Your task to perform on an android device: Open Yahoo.com Image 0: 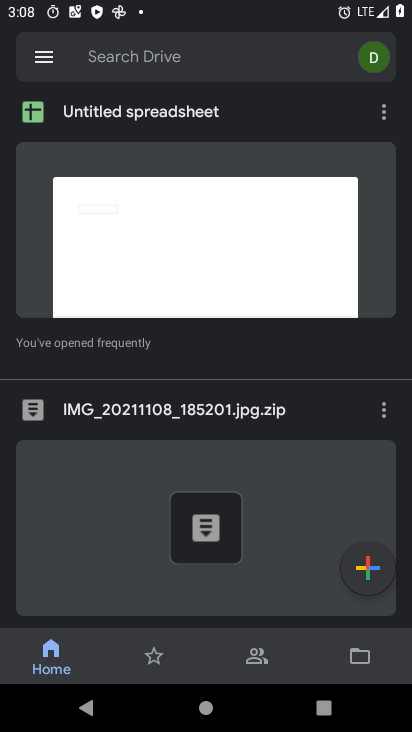
Step 0: press home button
Your task to perform on an android device: Open Yahoo.com Image 1: 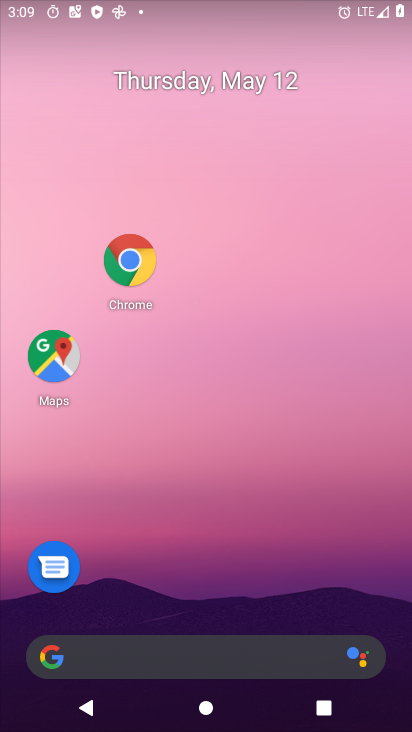
Step 1: click (128, 246)
Your task to perform on an android device: Open Yahoo.com Image 2: 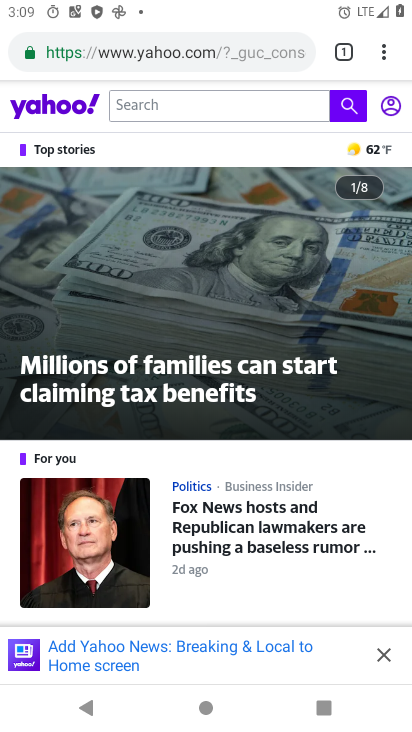
Step 2: task complete